Your task to perform on an android device: Open maps Image 0: 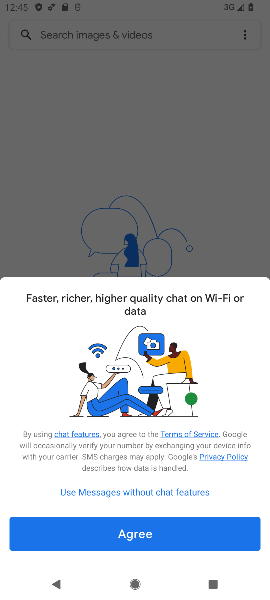
Step 0: press home button
Your task to perform on an android device: Open maps Image 1: 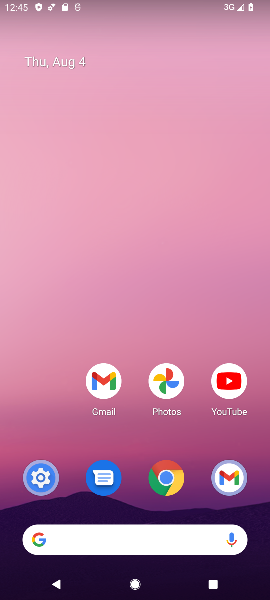
Step 1: drag from (127, 440) to (154, 123)
Your task to perform on an android device: Open maps Image 2: 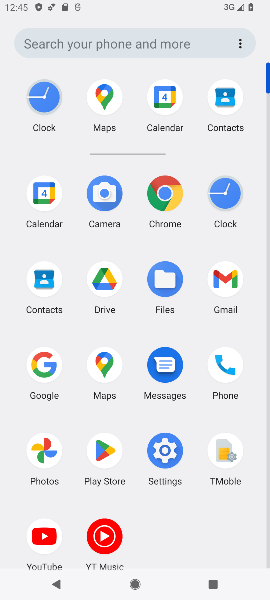
Step 2: click (95, 366)
Your task to perform on an android device: Open maps Image 3: 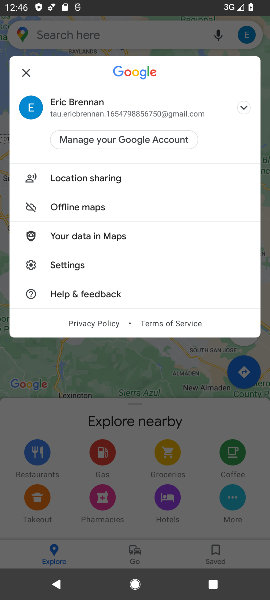
Step 3: click (222, 381)
Your task to perform on an android device: Open maps Image 4: 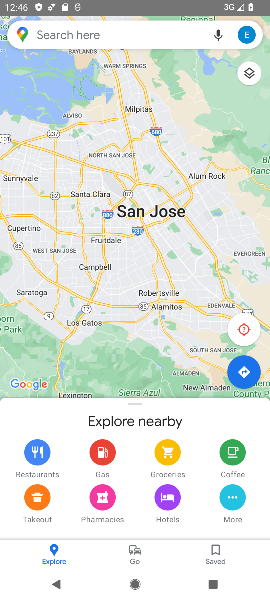
Step 4: task complete